Your task to perform on an android device: Search for vegetarian restaurants on Maps Image 0: 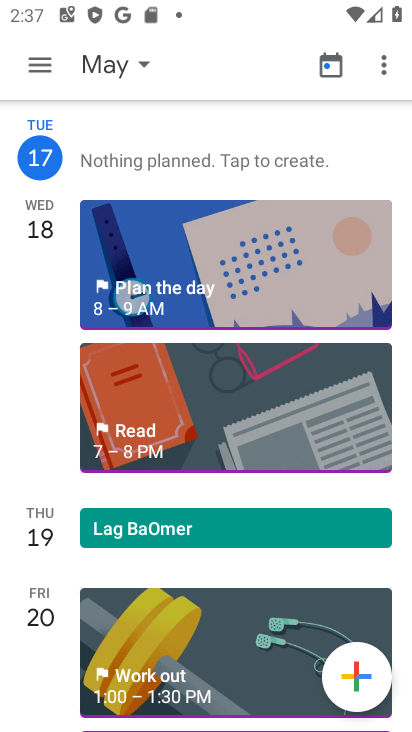
Step 0: press back button
Your task to perform on an android device: Search for vegetarian restaurants on Maps Image 1: 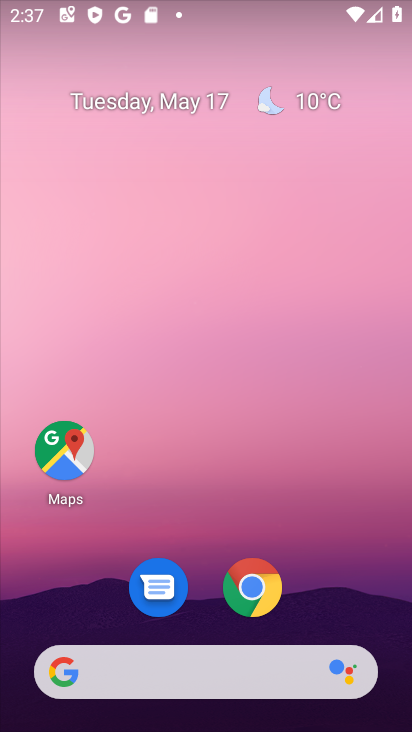
Step 1: drag from (319, 579) to (244, 0)
Your task to perform on an android device: Search for vegetarian restaurants on Maps Image 2: 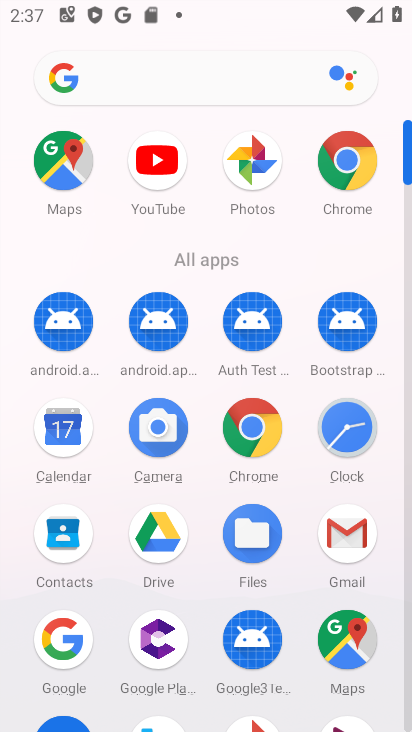
Step 2: click (339, 638)
Your task to perform on an android device: Search for vegetarian restaurants on Maps Image 3: 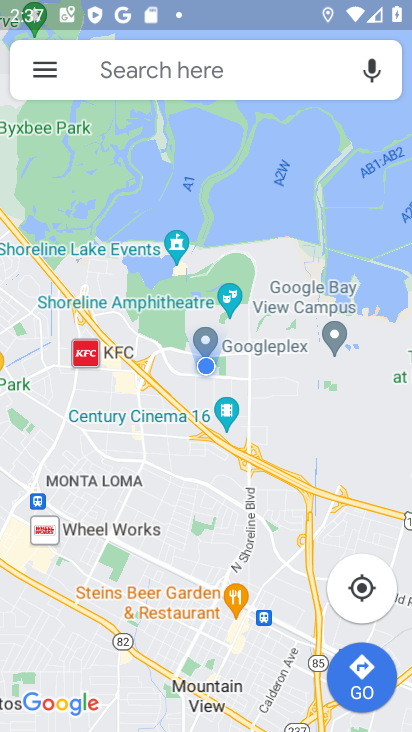
Step 3: click (246, 69)
Your task to perform on an android device: Search for vegetarian restaurants on Maps Image 4: 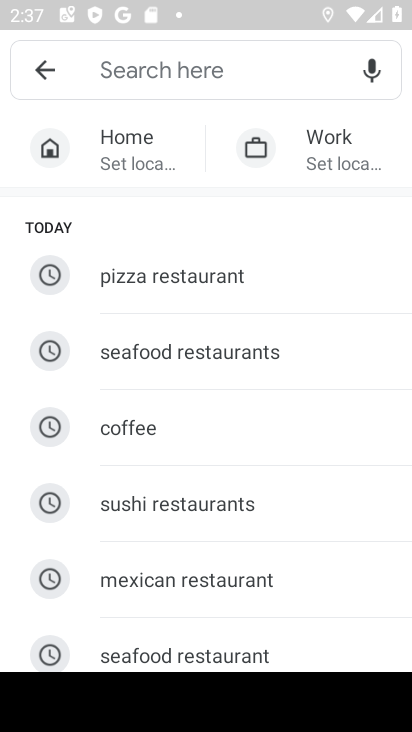
Step 4: type "vegetarian restaurants"
Your task to perform on an android device: Search for vegetarian restaurants on Maps Image 5: 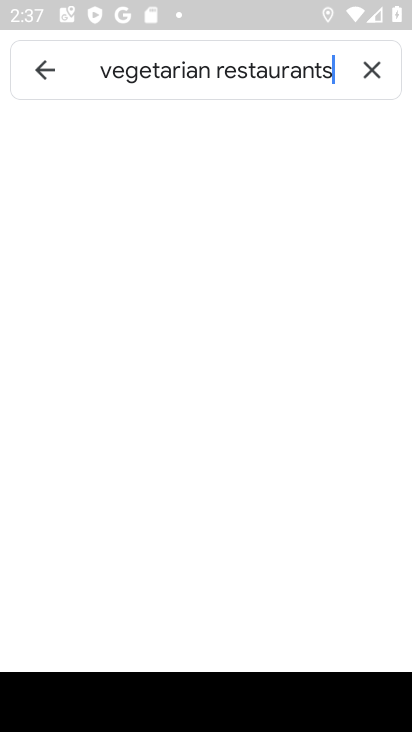
Step 5: type ""
Your task to perform on an android device: Search for vegetarian restaurants on Maps Image 6: 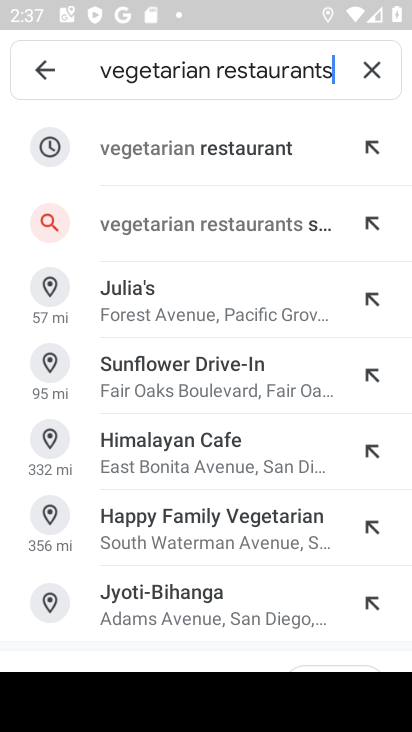
Step 6: click (221, 164)
Your task to perform on an android device: Search for vegetarian restaurants on Maps Image 7: 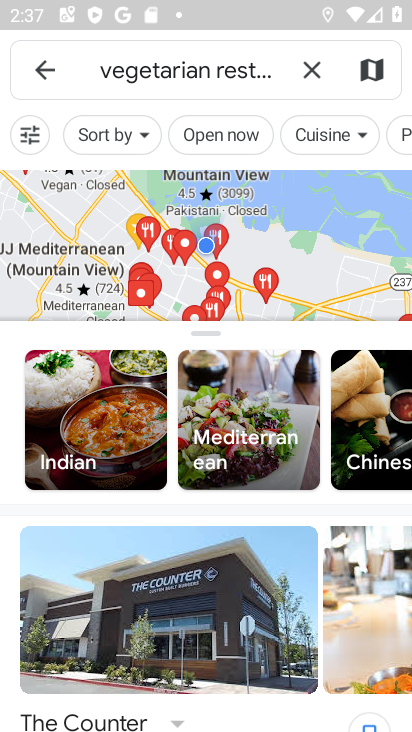
Step 7: task complete